Your task to perform on an android device: Go to Google maps Image 0: 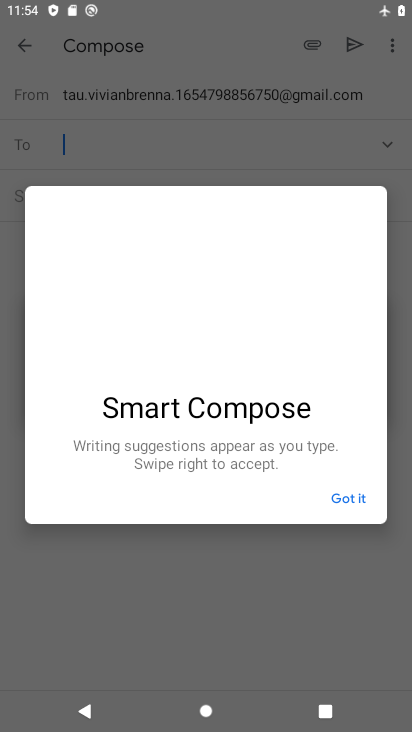
Step 0: press home button
Your task to perform on an android device: Go to Google maps Image 1: 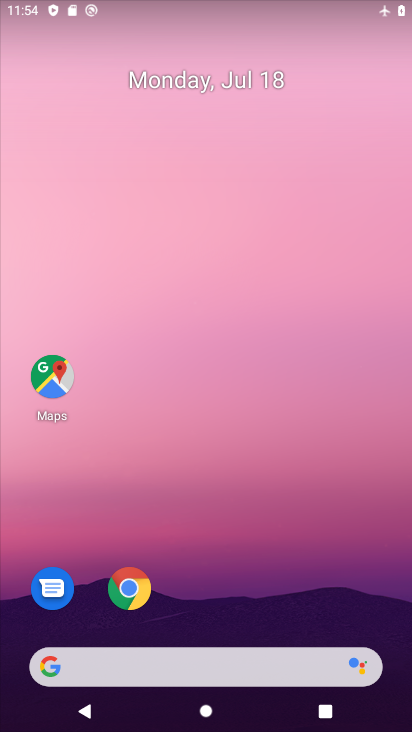
Step 1: drag from (175, 645) to (277, 146)
Your task to perform on an android device: Go to Google maps Image 2: 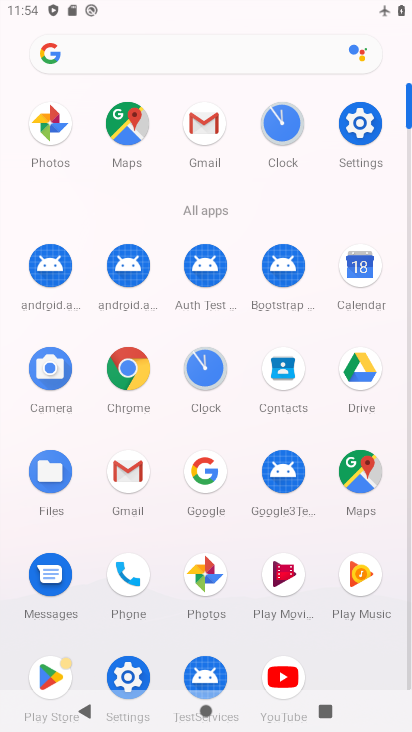
Step 2: click (361, 468)
Your task to perform on an android device: Go to Google maps Image 3: 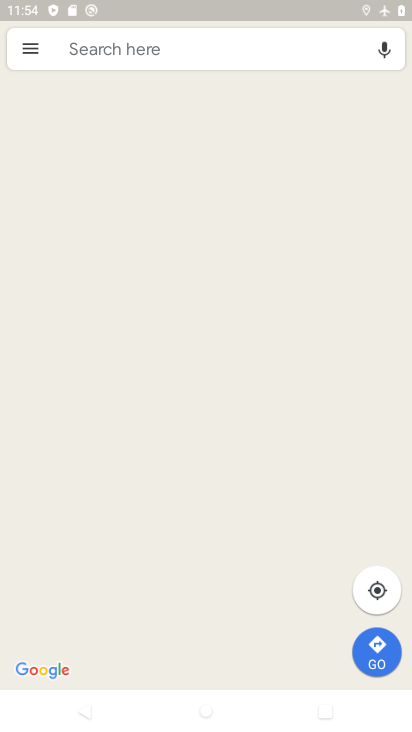
Step 3: task complete